Your task to perform on an android device: Open ESPN.com Image 0: 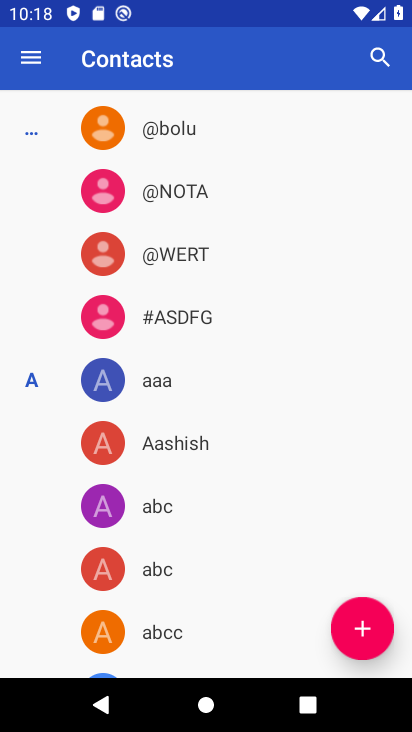
Step 0: press home button
Your task to perform on an android device: Open ESPN.com Image 1: 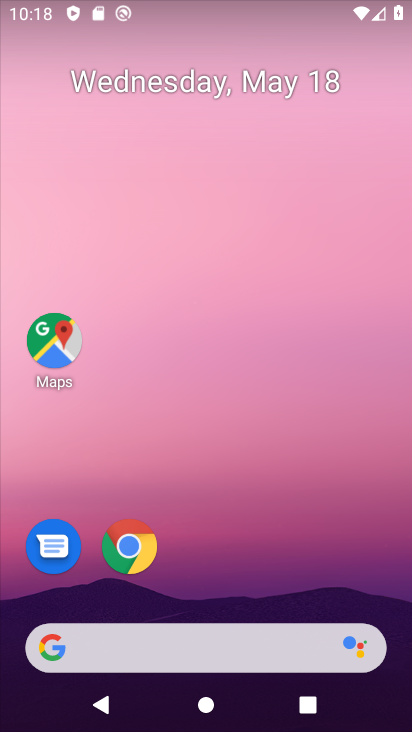
Step 1: click (130, 540)
Your task to perform on an android device: Open ESPN.com Image 2: 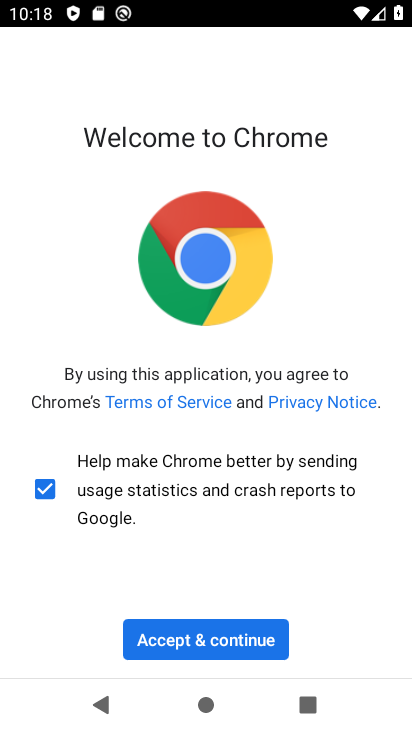
Step 2: click (213, 641)
Your task to perform on an android device: Open ESPN.com Image 3: 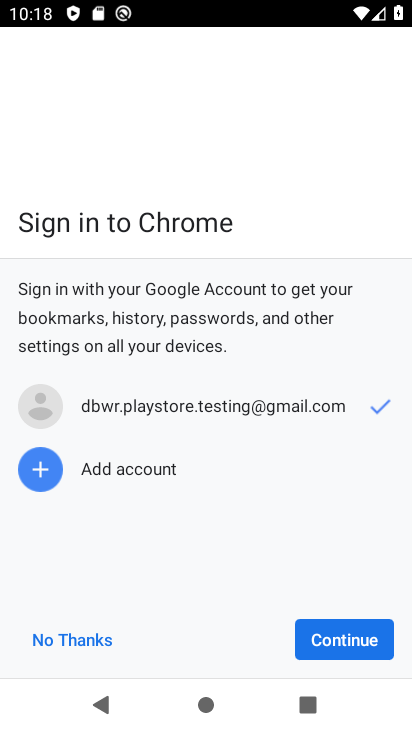
Step 3: click (348, 637)
Your task to perform on an android device: Open ESPN.com Image 4: 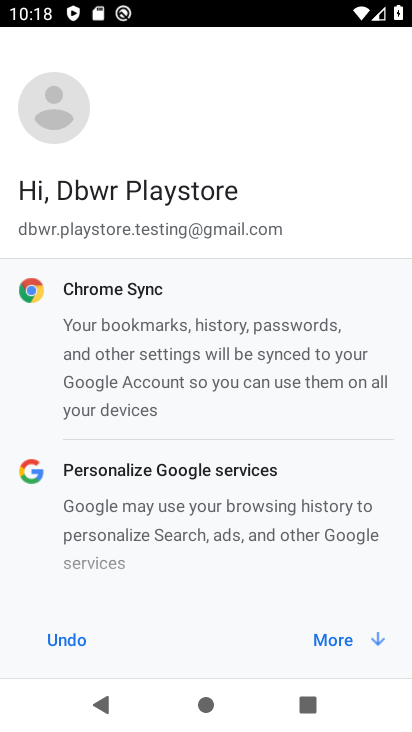
Step 4: click (330, 635)
Your task to perform on an android device: Open ESPN.com Image 5: 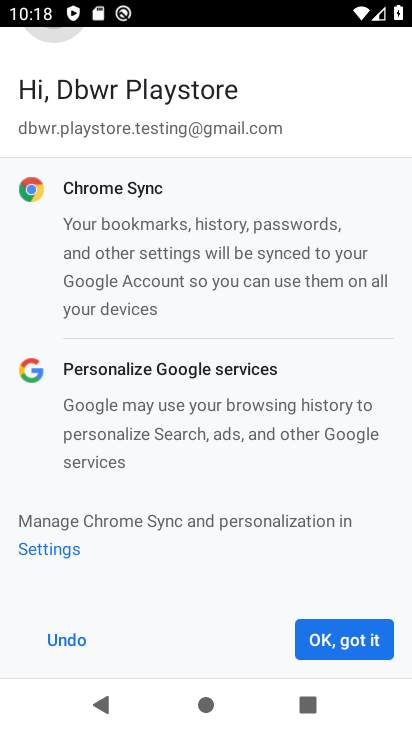
Step 5: click (332, 640)
Your task to perform on an android device: Open ESPN.com Image 6: 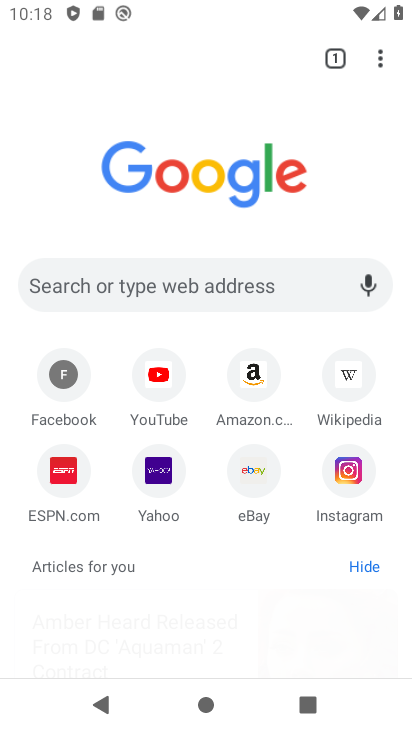
Step 6: click (214, 294)
Your task to perform on an android device: Open ESPN.com Image 7: 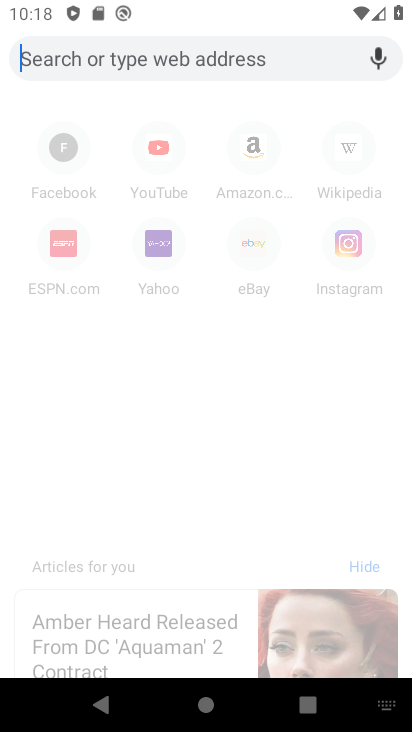
Step 7: type "ESPN.com"
Your task to perform on an android device: Open ESPN.com Image 8: 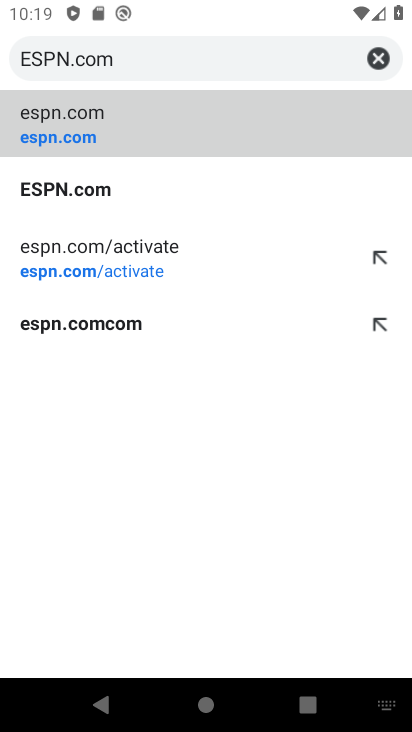
Step 8: click (50, 184)
Your task to perform on an android device: Open ESPN.com Image 9: 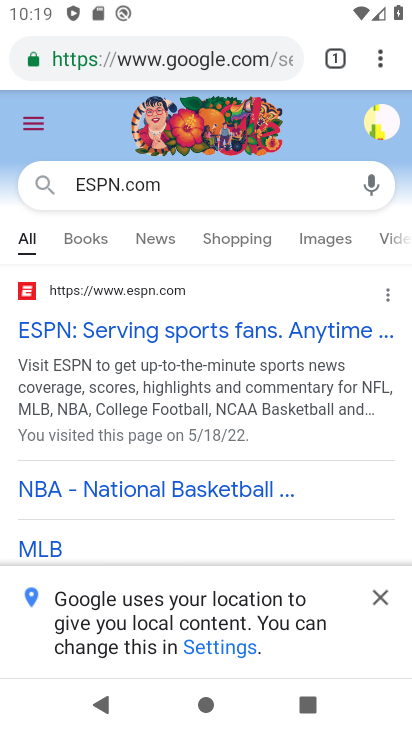
Step 9: click (193, 326)
Your task to perform on an android device: Open ESPN.com Image 10: 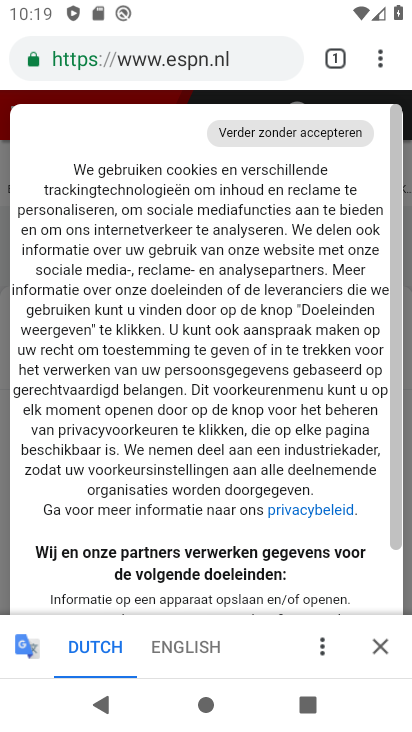
Step 10: click (381, 643)
Your task to perform on an android device: Open ESPN.com Image 11: 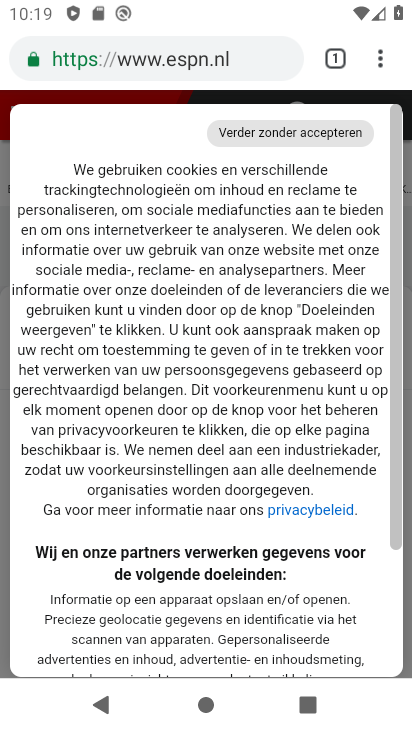
Step 11: task complete